Your task to perform on an android device: Go to Amazon Image 0: 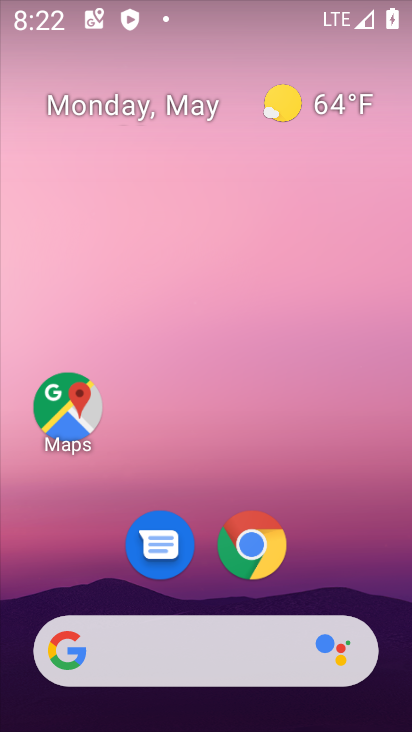
Step 0: click (265, 558)
Your task to perform on an android device: Go to Amazon Image 1: 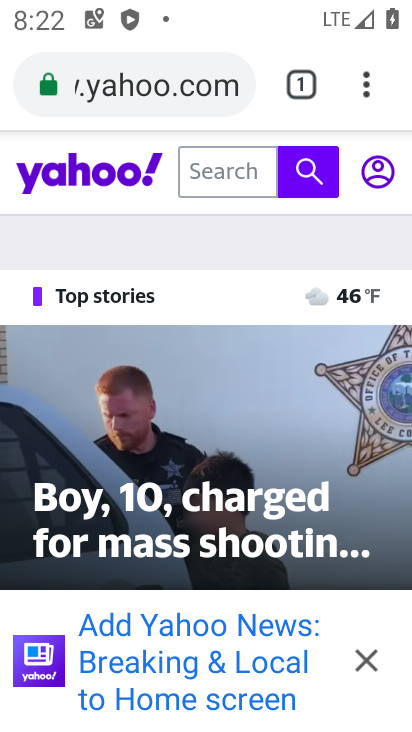
Step 1: click (165, 94)
Your task to perform on an android device: Go to Amazon Image 2: 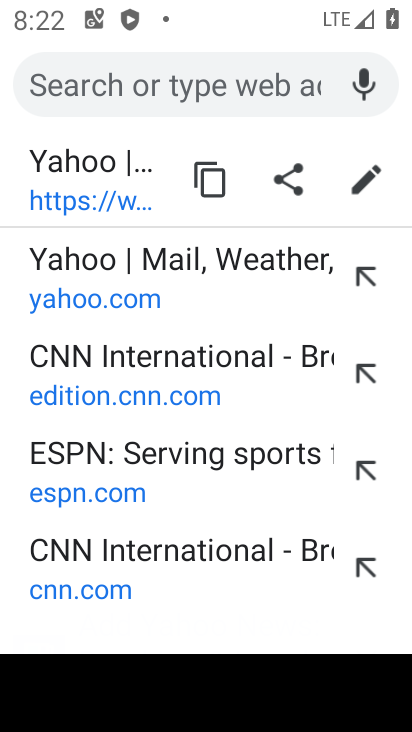
Step 2: type "amazon"
Your task to perform on an android device: Go to Amazon Image 3: 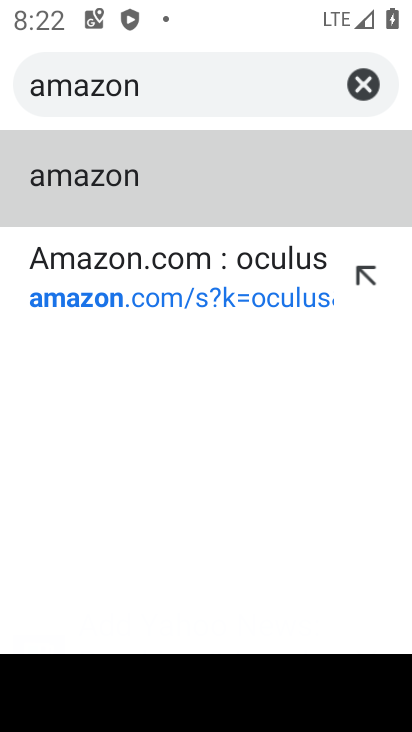
Step 3: click (211, 287)
Your task to perform on an android device: Go to Amazon Image 4: 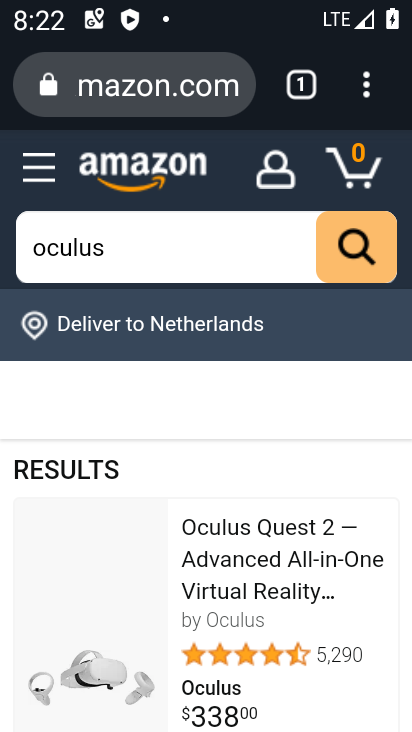
Step 4: task complete